Your task to perform on an android device: How much does a 3 bedroom apartment rent for in Denver? Image 0: 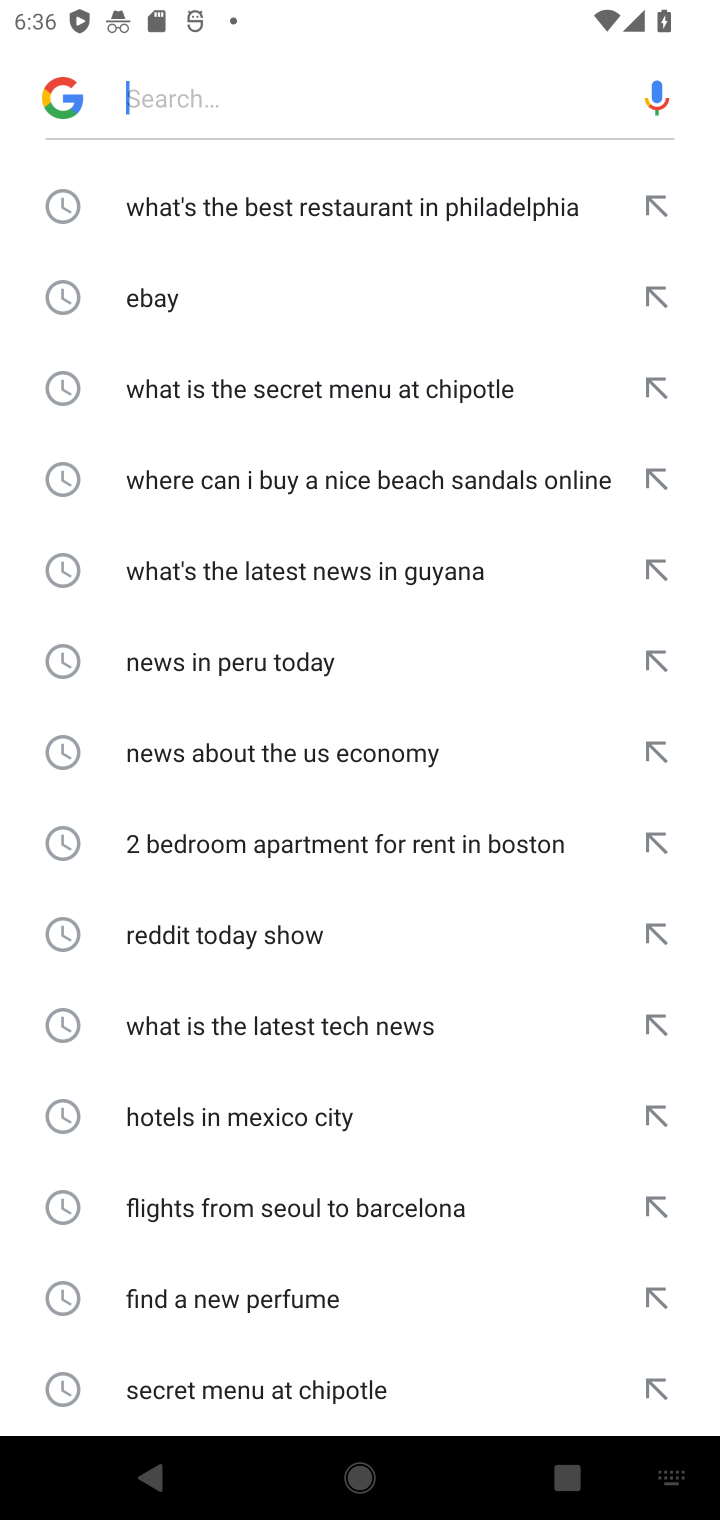
Step 0: click (228, 103)
Your task to perform on an android device: How much does a 3 bedroom apartment rent for in Denver? Image 1: 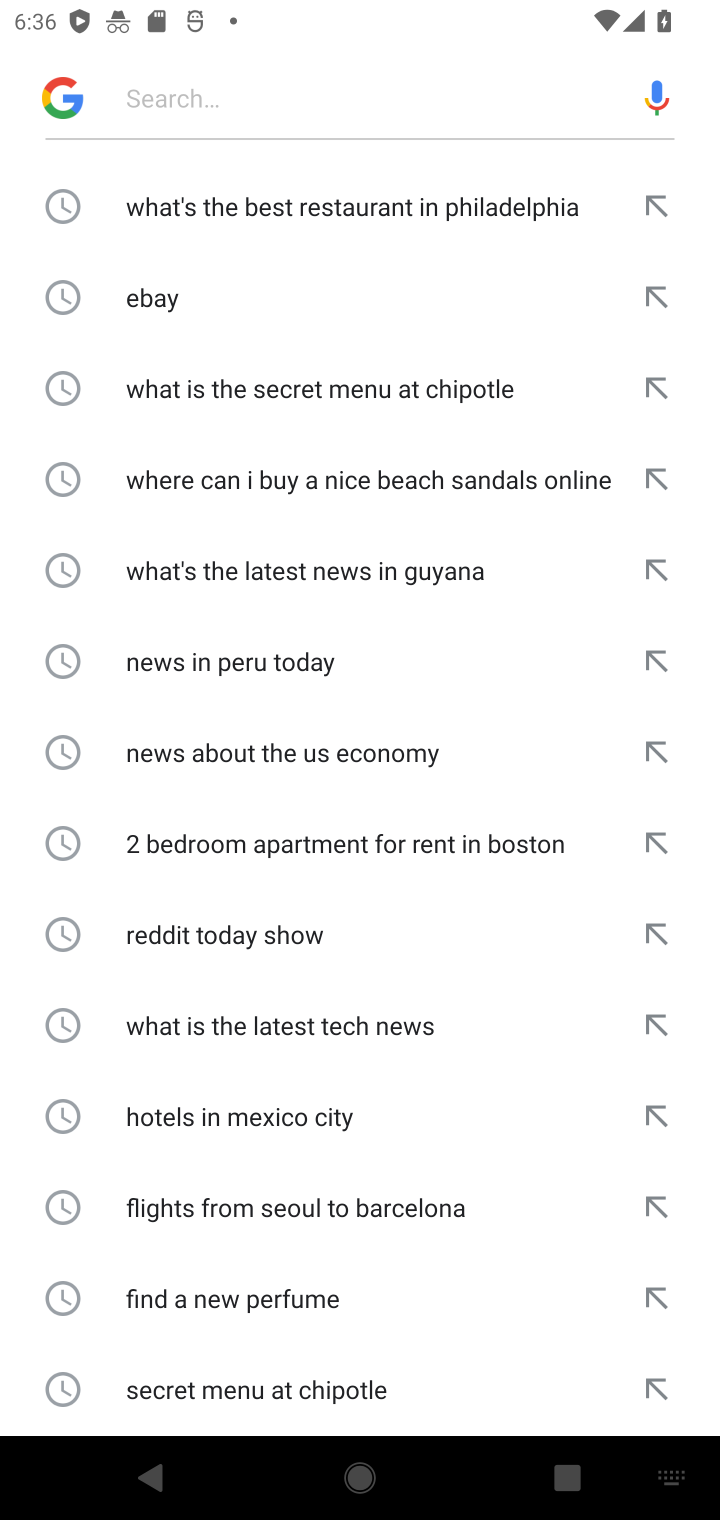
Step 1: type "How much does a 3 bedroom apartment rent for in Denver"
Your task to perform on an android device: How much does a 3 bedroom apartment rent for in Denver? Image 2: 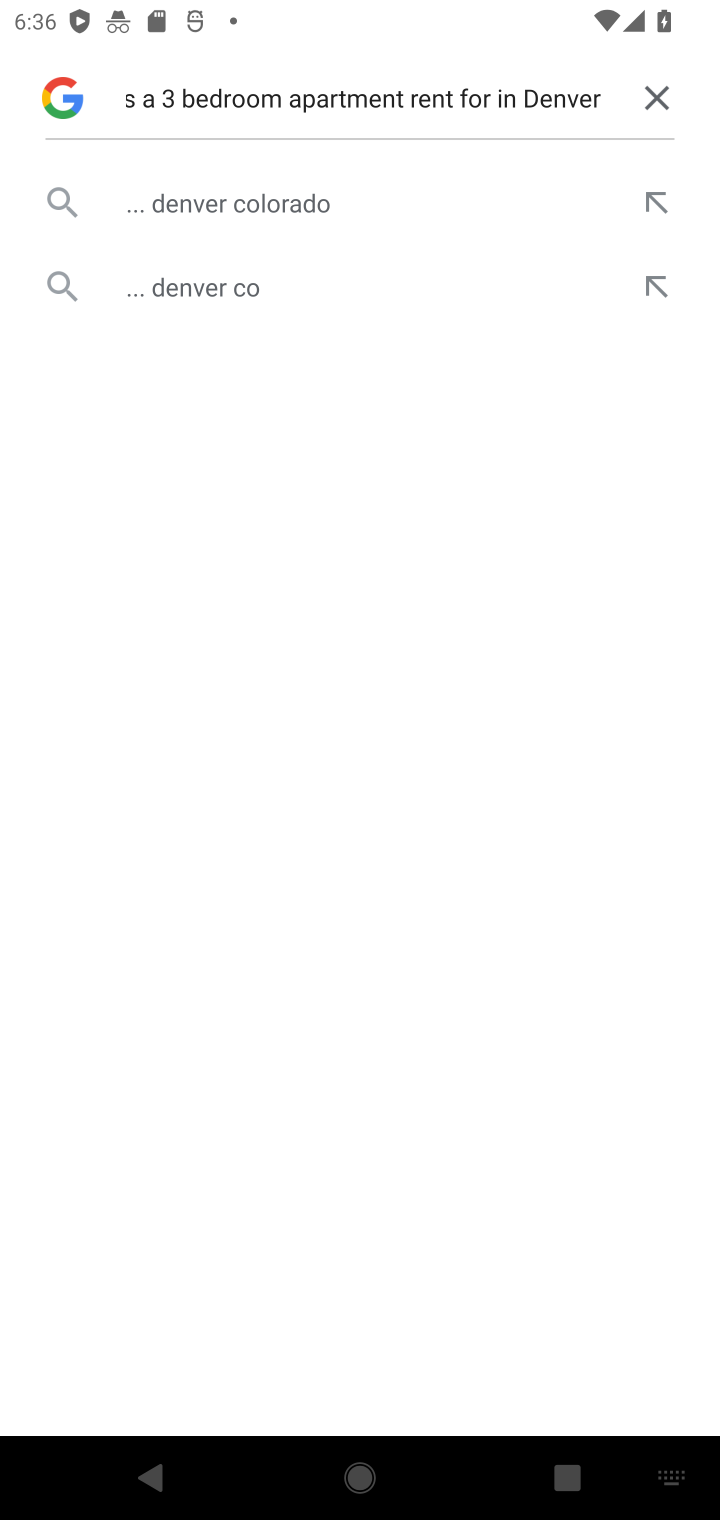
Step 2: click (323, 199)
Your task to perform on an android device: How much does a 3 bedroom apartment rent for in Denver? Image 3: 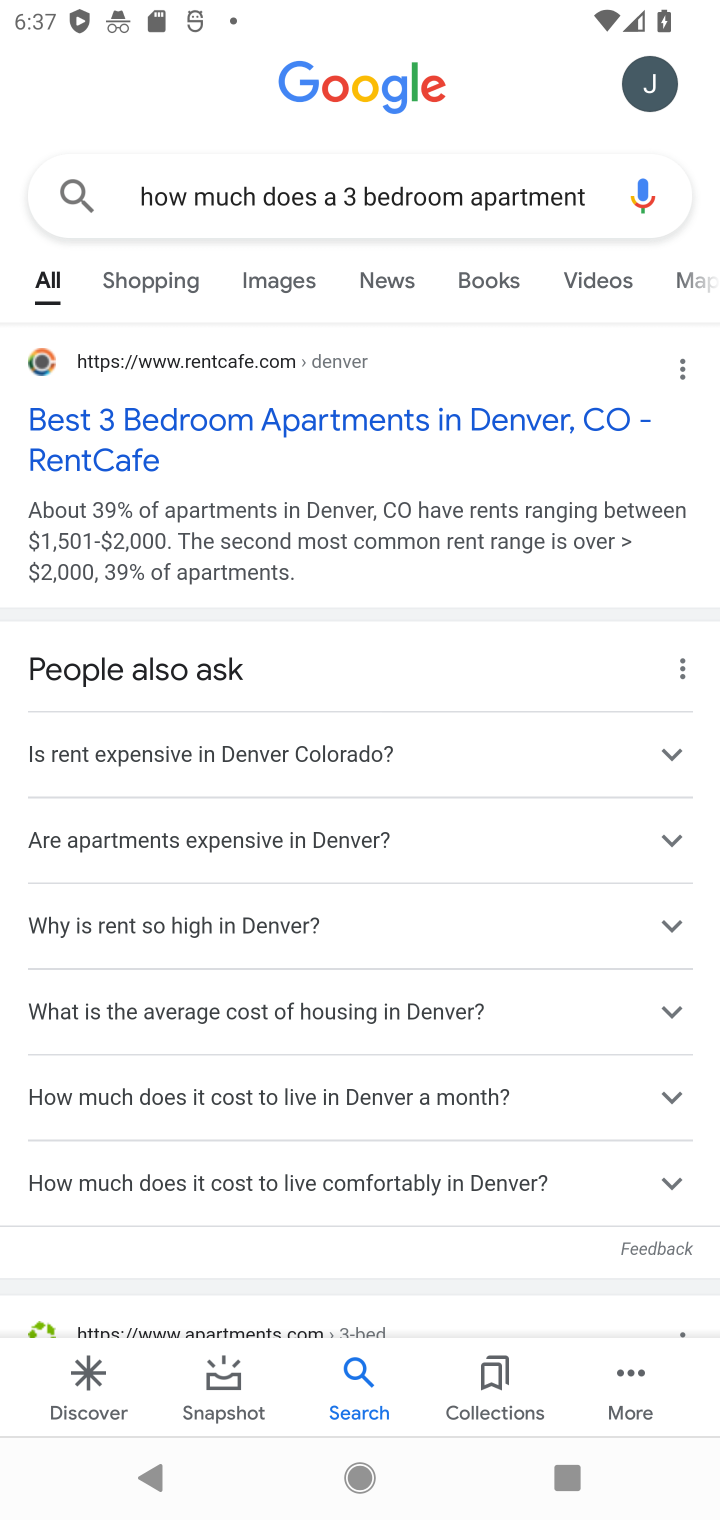
Step 3: click (259, 433)
Your task to perform on an android device: How much does a 3 bedroom apartment rent for in Denver? Image 4: 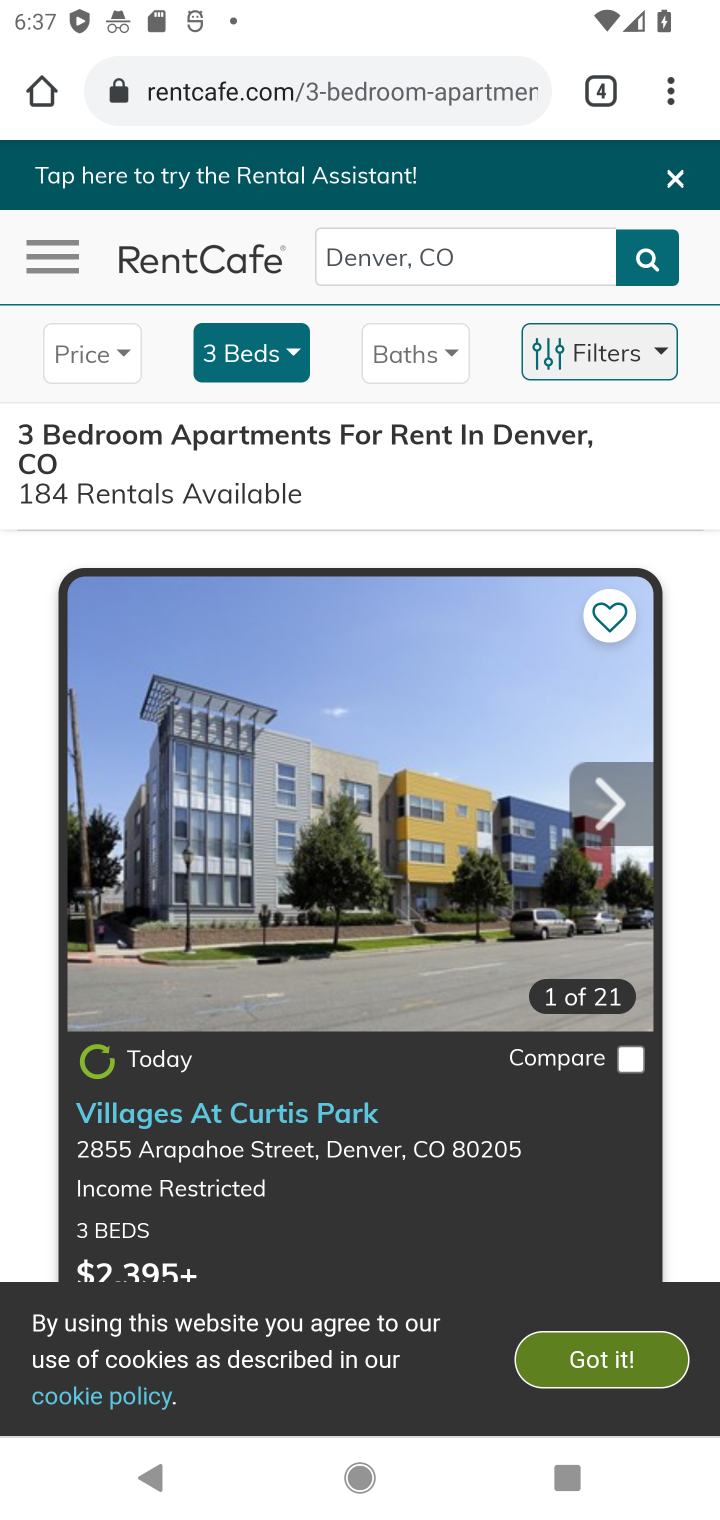
Step 4: task complete